Your task to perform on an android device: Open notification settings Image 0: 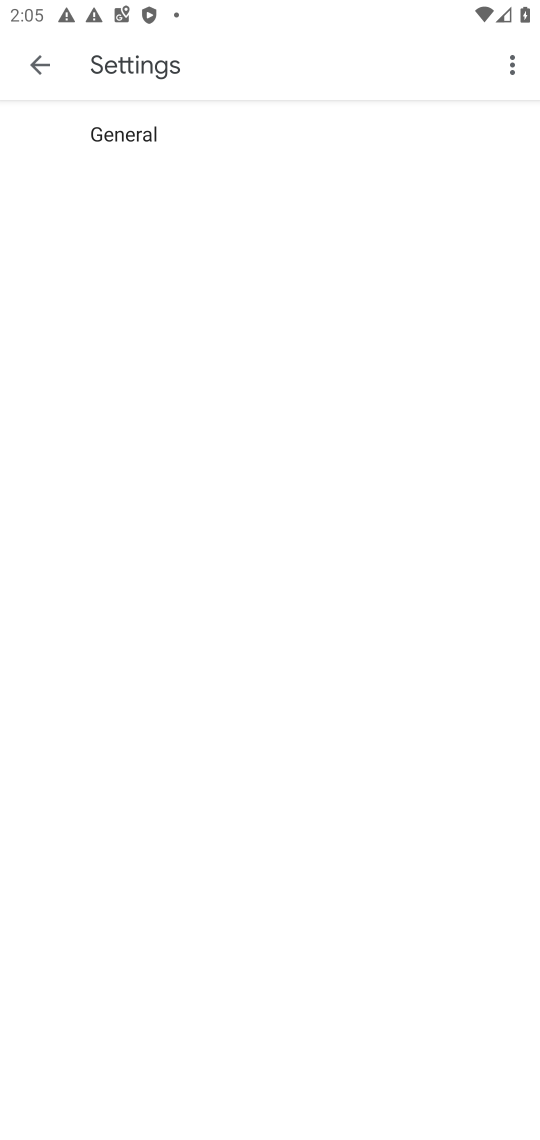
Step 0: press home button
Your task to perform on an android device: Open notification settings Image 1: 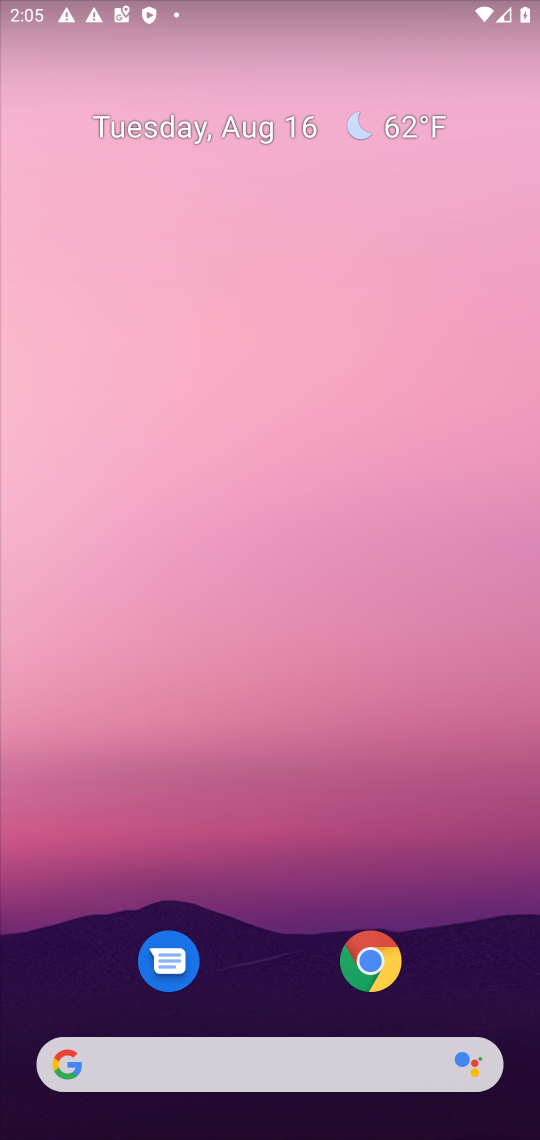
Step 1: drag from (473, 868) to (343, 85)
Your task to perform on an android device: Open notification settings Image 2: 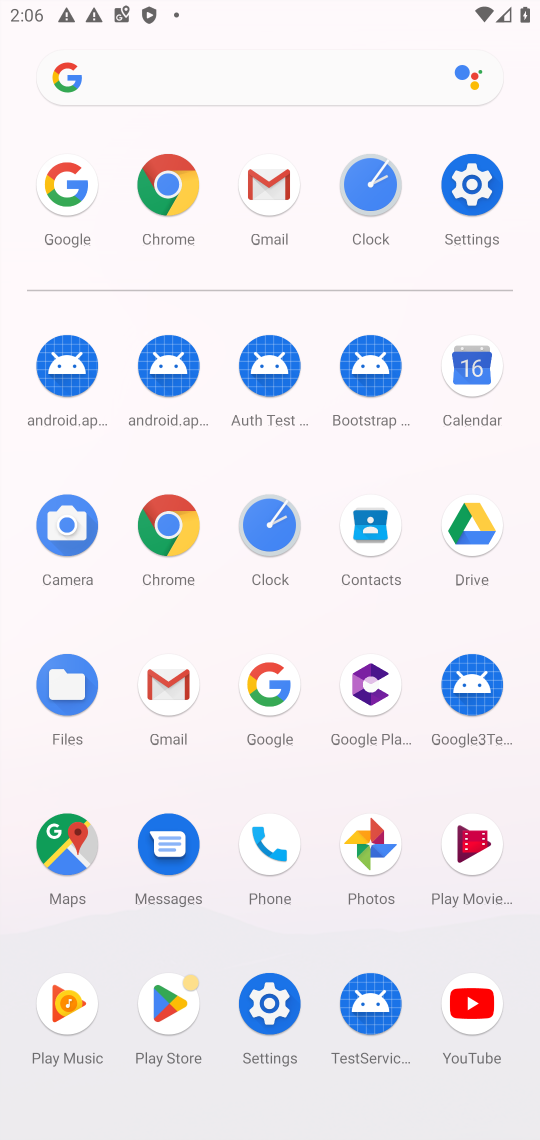
Step 2: click (252, 1000)
Your task to perform on an android device: Open notification settings Image 3: 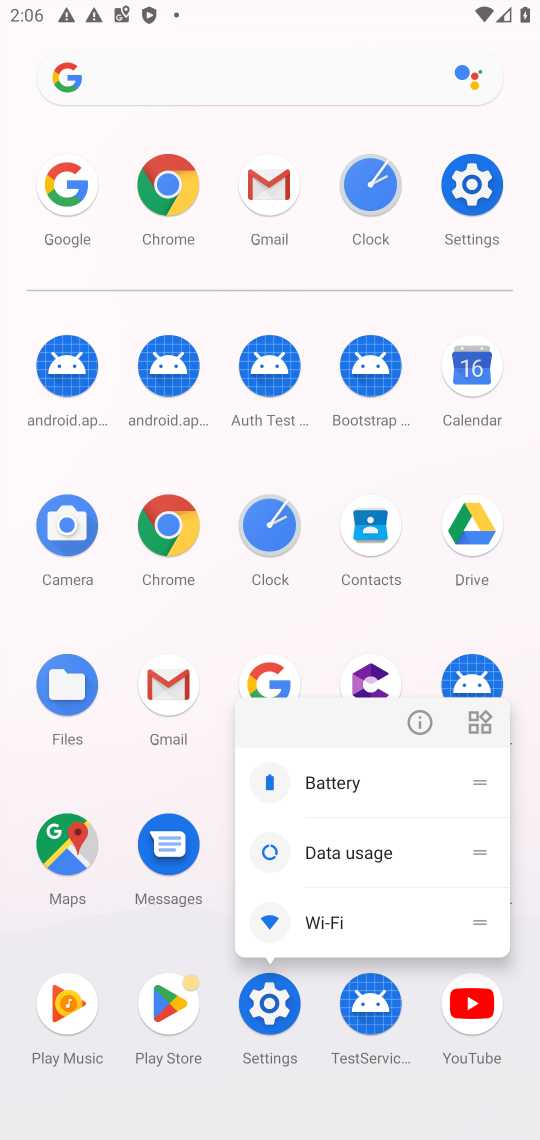
Step 3: click (252, 1000)
Your task to perform on an android device: Open notification settings Image 4: 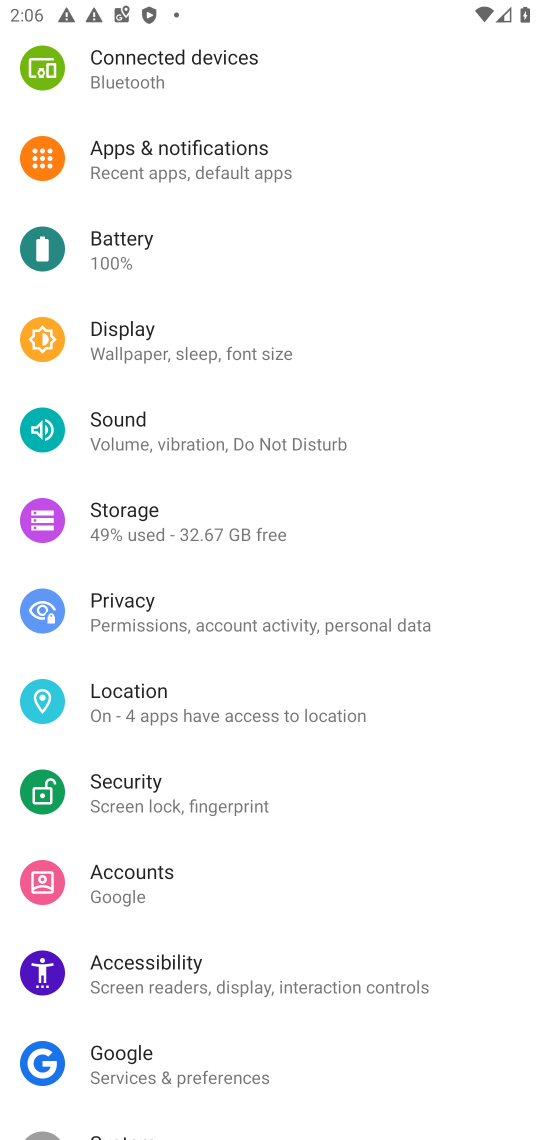
Step 4: click (249, 160)
Your task to perform on an android device: Open notification settings Image 5: 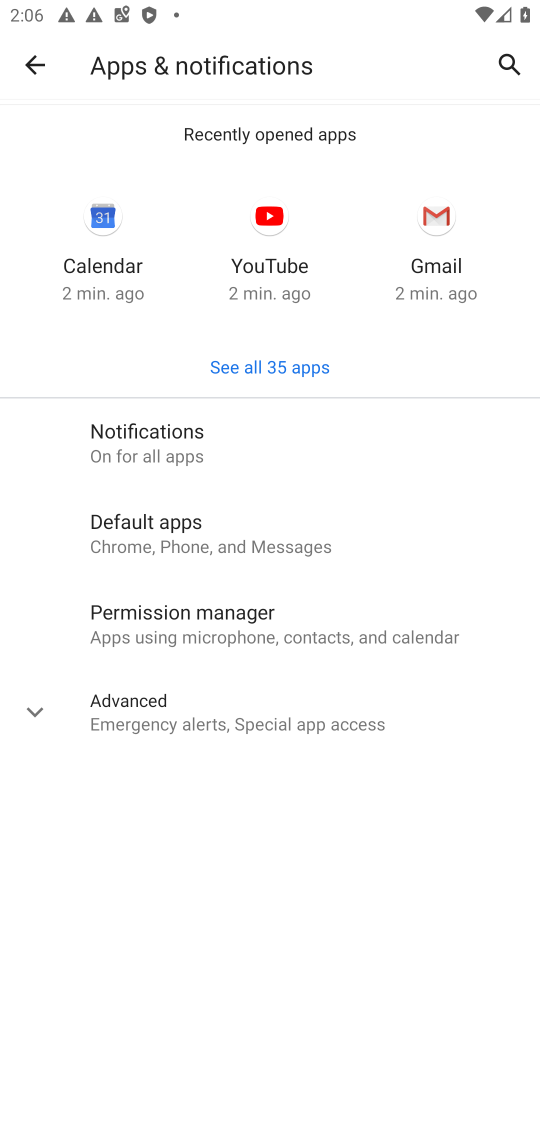
Step 5: click (239, 432)
Your task to perform on an android device: Open notification settings Image 6: 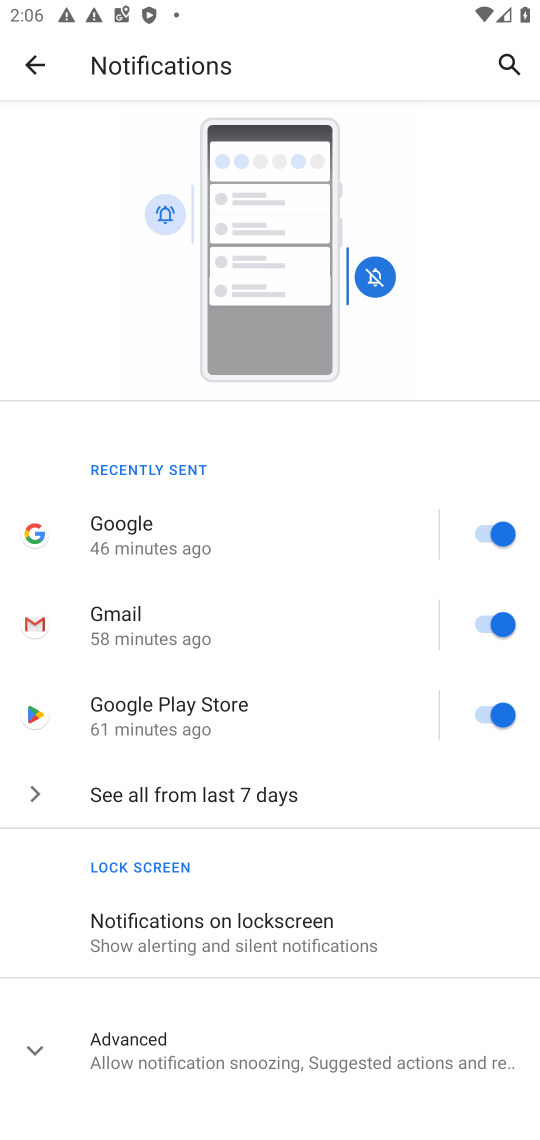
Step 6: task complete